Your task to perform on an android device: What's on my calendar today? Image 0: 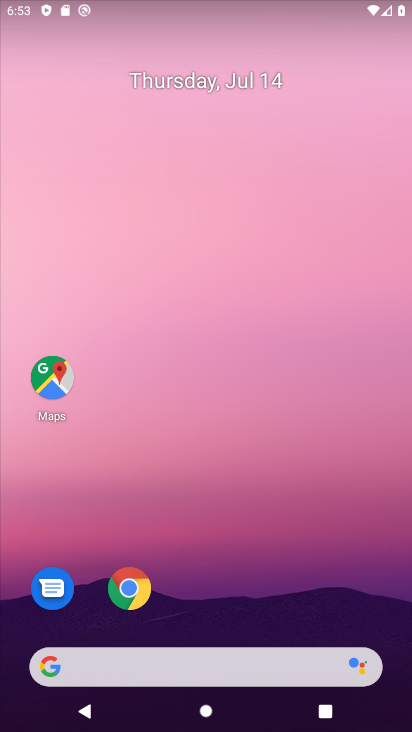
Step 0: drag from (353, 632) to (300, 99)
Your task to perform on an android device: What's on my calendar today? Image 1: 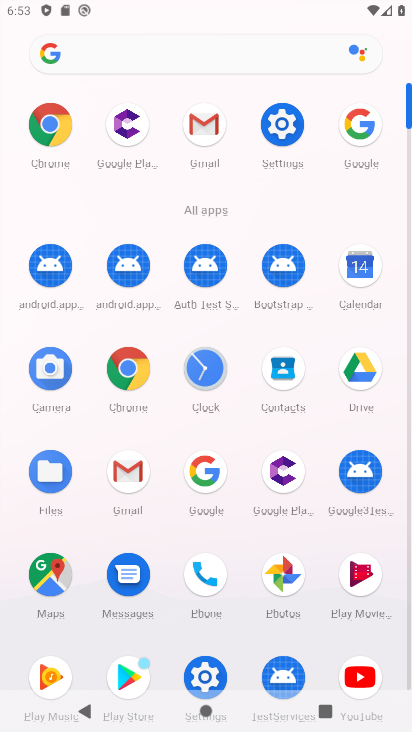
Step 1: click (361, 254)
Your task to perform on an android device: What's on my calendar today? Image 2: 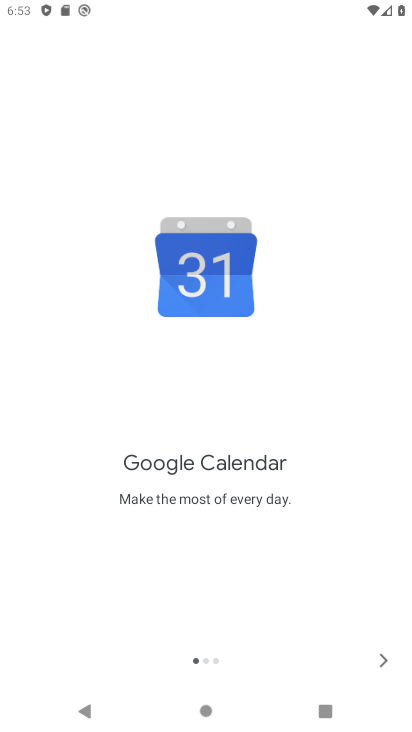
Step 2: click (382, 656)
Your task to perform on an android device: What's on my calendar today? Image 3: 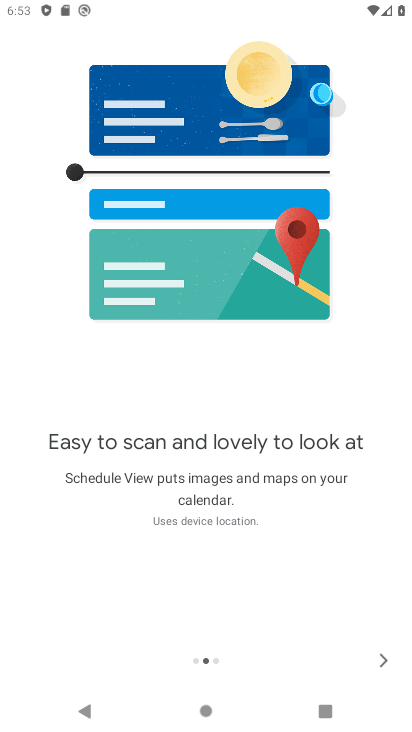
Step 3: click (382, 650)
Your task to perform on an android device: What's on my calendar today? Image 4: 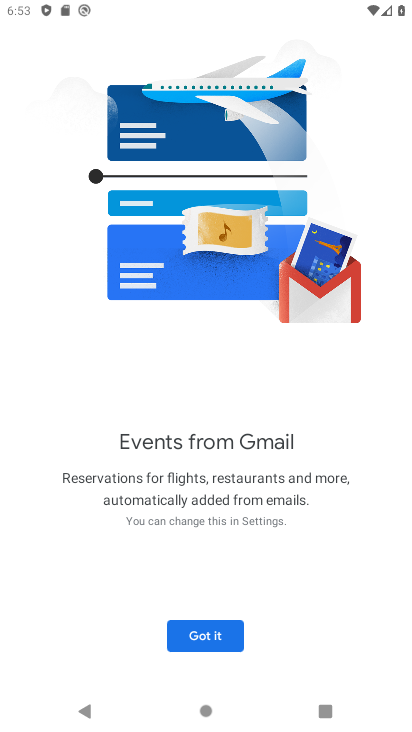
Step 4: click (241, 652)
Your task to perform on an android device: What's on my calendar today? Image 5: 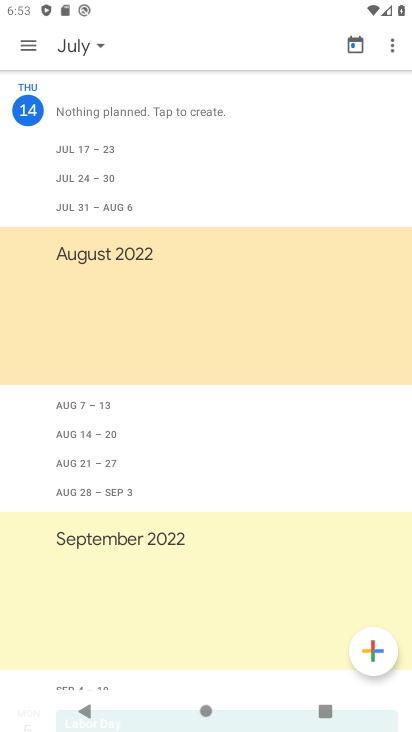
Step 5: click (66, 45)
Your task to perform on an android device: What's on my calendar today? Image 6: 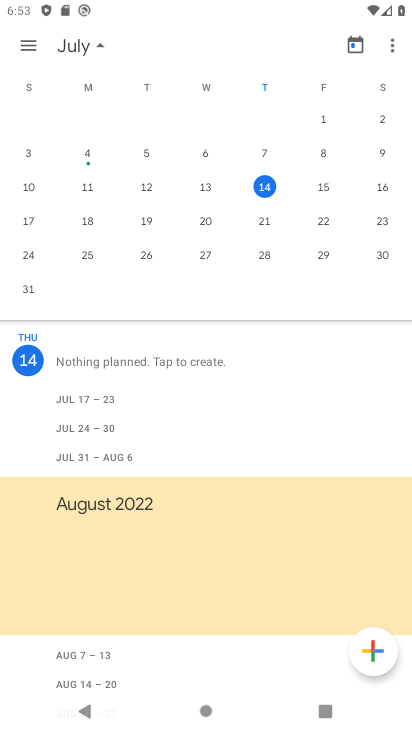
Step 6: click (322, 186)
Your task to perform on an android device: What's on my calendar today? Image 7: 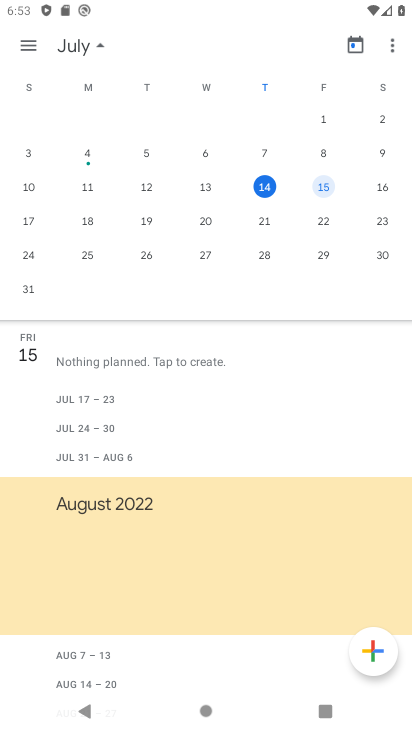
Step 7: click (322, 186)
Your task to perform on an android device: What's on my calendar today? Image 8: 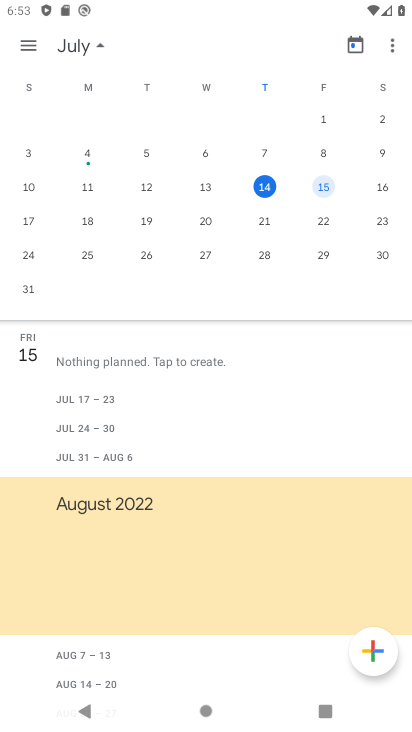
Step 8: click (165, 391)
Your task to perform on an android device: What's on my calendar today? Image 9: 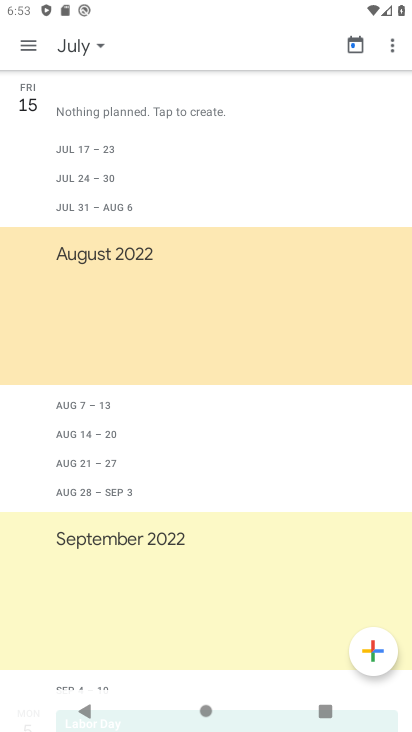
Step 9: click (187, 163)
Your task to perform on an android device: What's on my calendar today? Image 10: 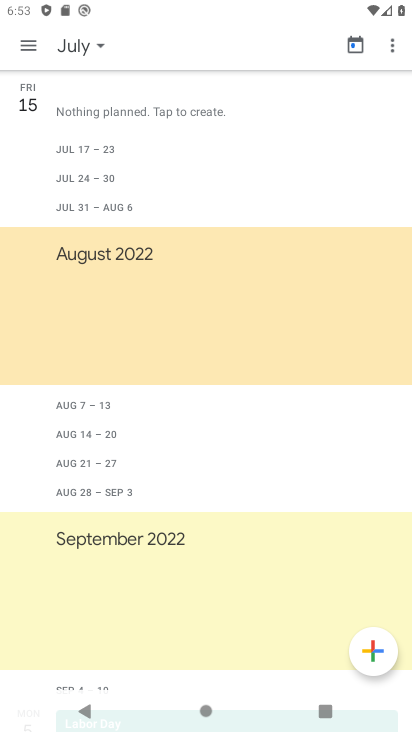
Step 10: click (187, 163)
Your task to perform on an android device: What's on my calendar today? Image 11: 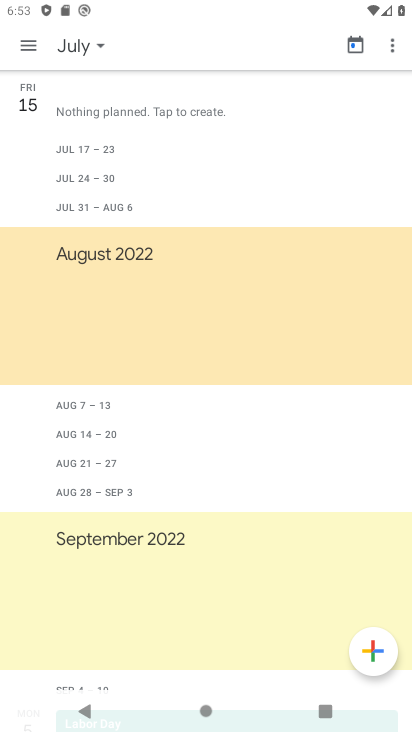
Step 11: click (101, 144)
Your task to perform on an android device: What's on my calendar today? Image 12: 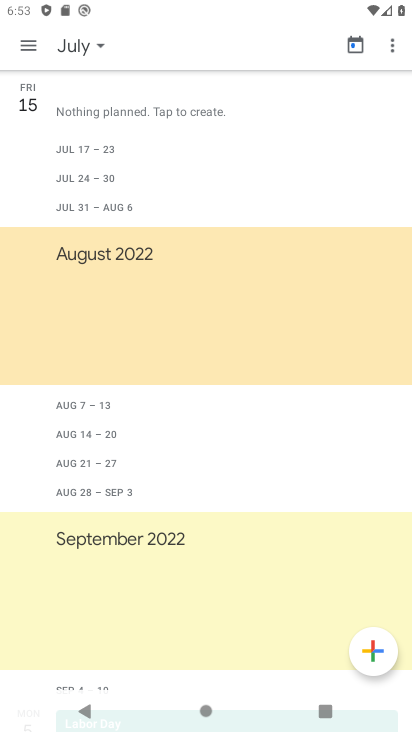
Step 12: task complete